Your task to perform on an android device: change timer sound Image 0: 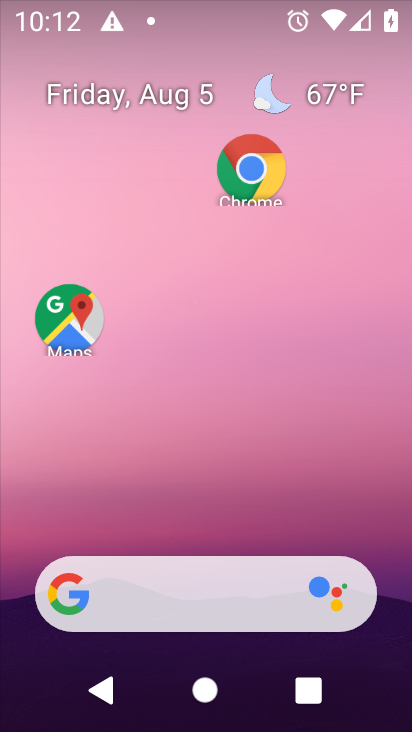
Step 0: drag from (212, 530) to (160, 154)
Your task to perform on an android device: change timer sound Image 1: 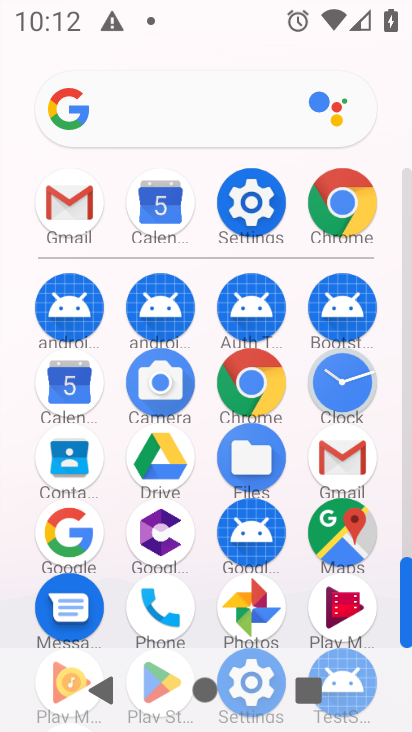
Step 1: drag from (107, 495) to (116, 251)
Your task to perform on an android device: change timer sound Image 2: 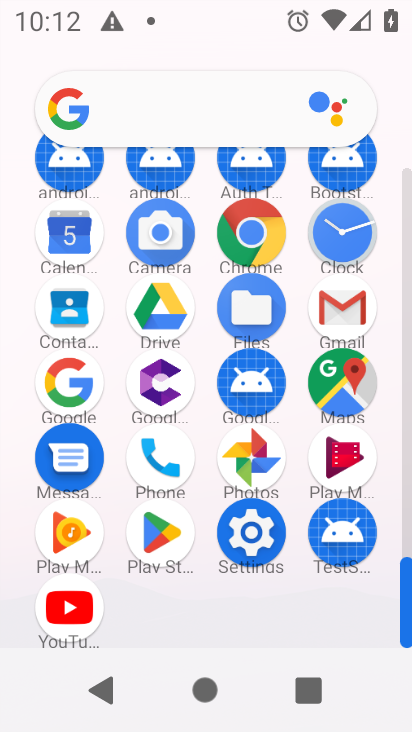
Step 2: click (358, 237)
Your task to perform on an android device: change timer sound Image 3: 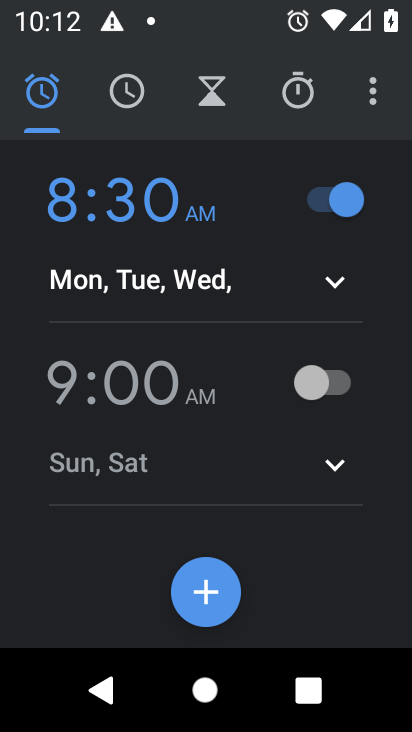
Step 3: click (380, 80)
Your task to perform on an android device: change timer sound Image 4: 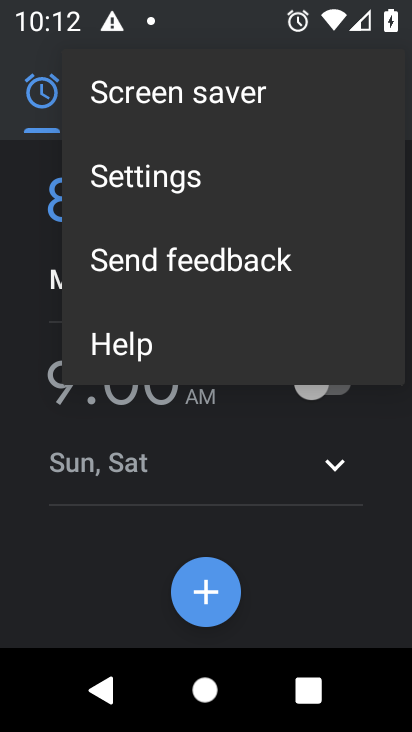
Step 4: click (168, 169)
Your task to perform on an android device: change timer sound Image 5: 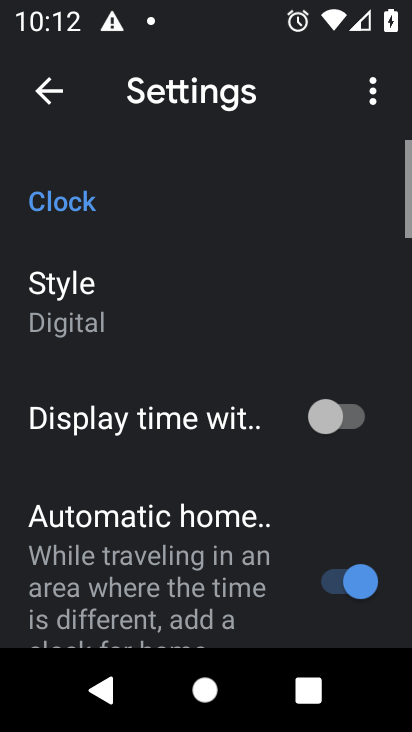
Step 5: drag from (150, 561) to (131, 139)
Your task to perform on an android device: change timer sound Image 6: 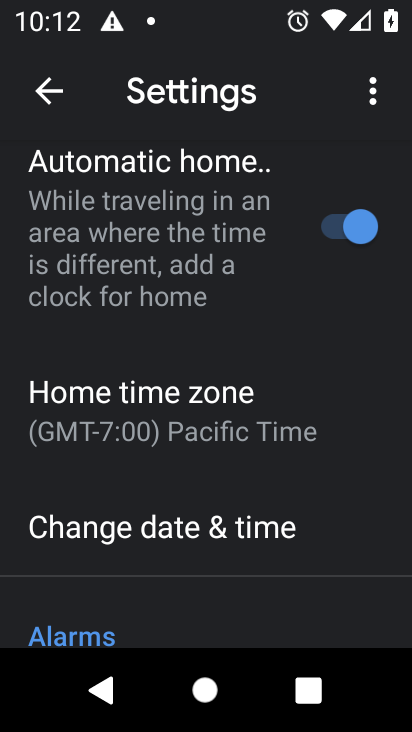
Step 6: drag from (196, 608) to (198, 203)
Your task to perform on an android device: change timer sound Image 7: 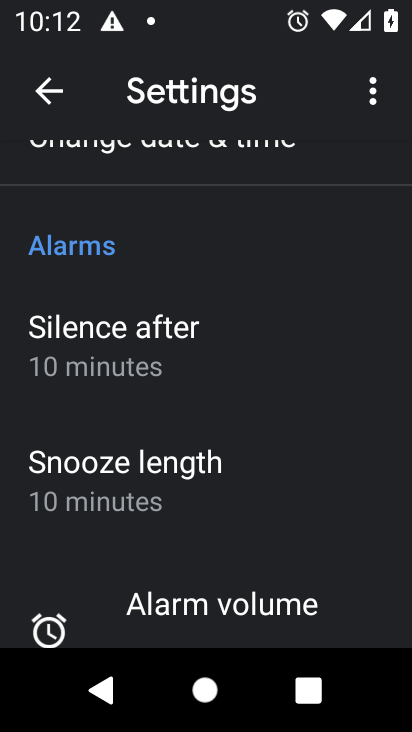
Step 7: drag from (202, 522) to (183, 100)
Your task to perform on an android device: change timer sound Image 8: 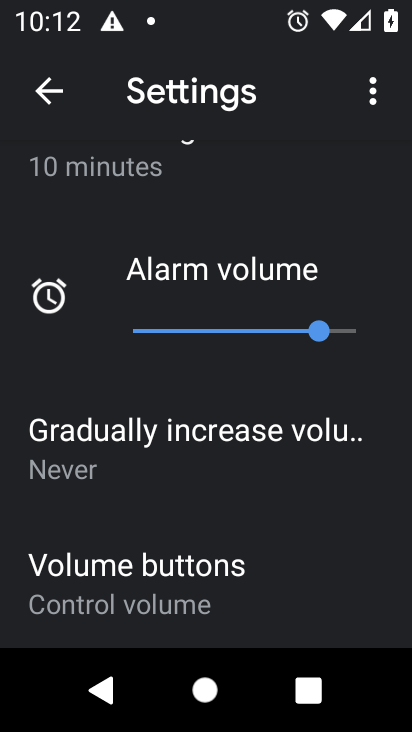
Step 8: drag from (190, 456) to (186, 46)
Your task to perform on an android device: change timer sound Image 9: 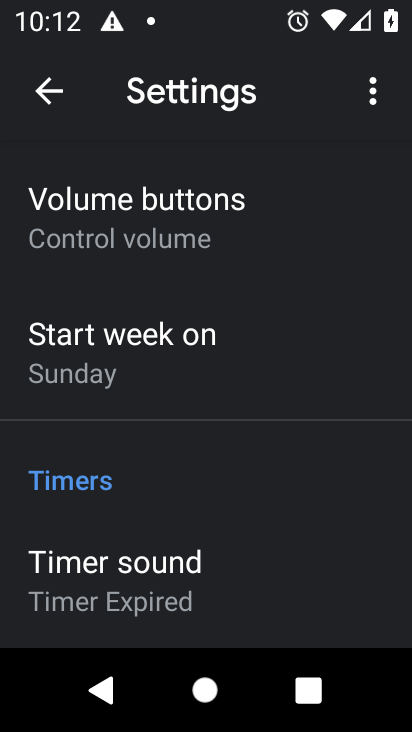
Step 9: click (162, 555)
Your task to perform on an android device: change timer sound Image 10: 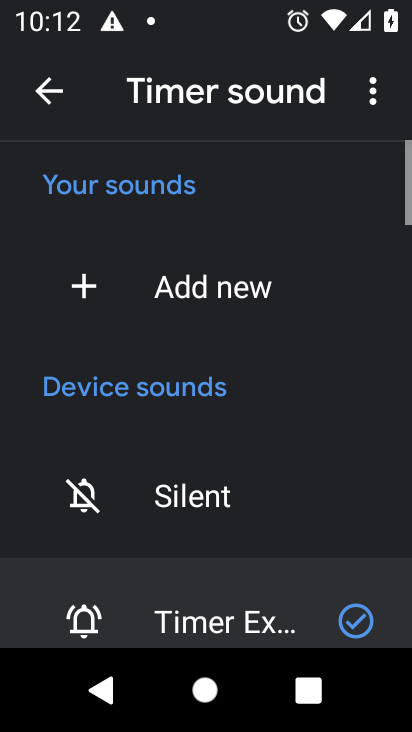
Step 10: drag from (163, 554) to (179, 239)
Your task to perform on an android device: change timer sound Image 11: 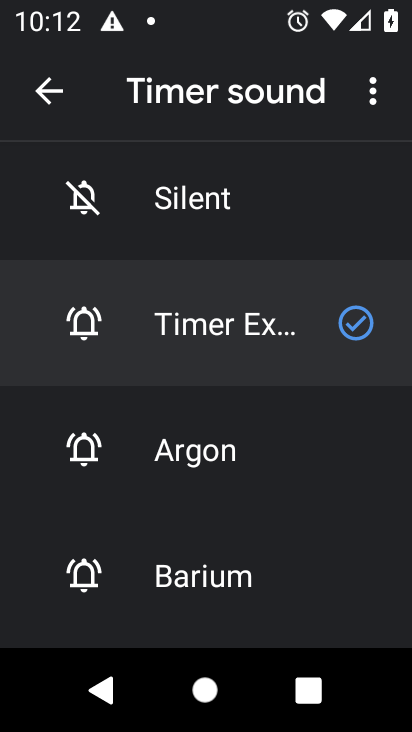
Step 11: click (183, 547)
Your task to perform on an android device: change timer sound Image 12: 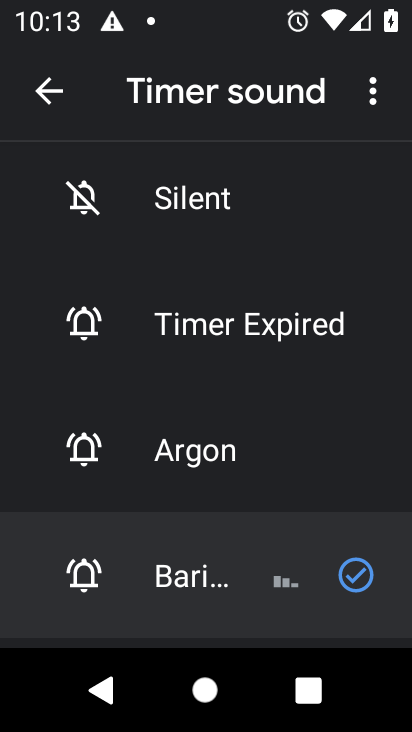
Step 12: task complete